Your task to perform on an android device: move a message to another label in the gmail app Image 0: 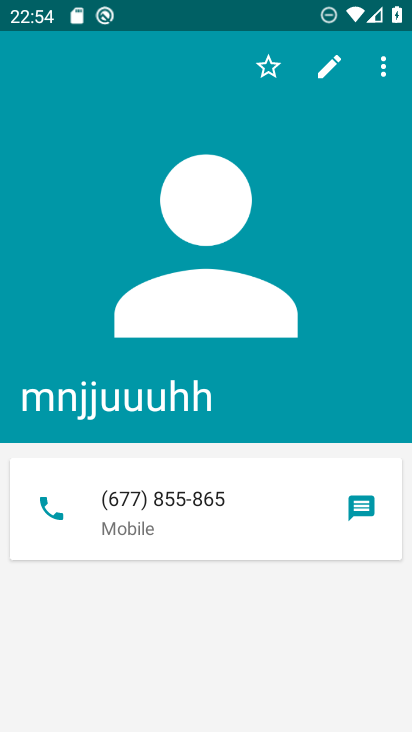
Step 0: press home button
Your task to perform on an android device: move a message to another label in the gmail app Image 1: 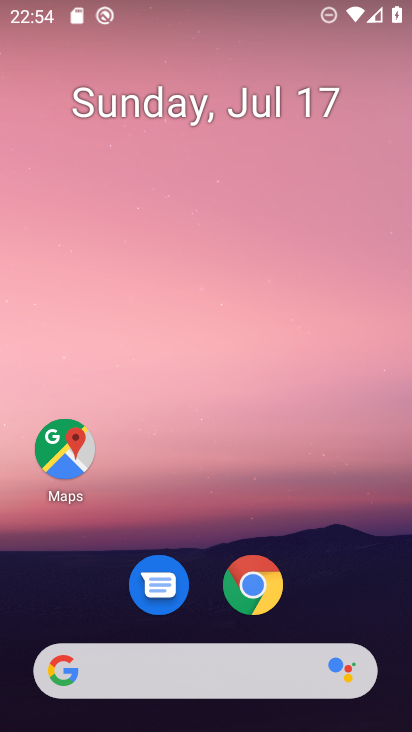
Step 1: drag from (248, 578) to (367, 126)
Your task to perform on an android device: move a message to another label in the gmail app Image 2: 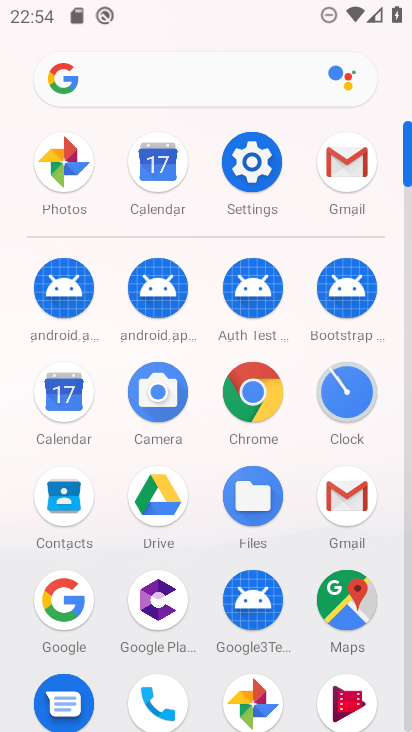
Step 2: click (344, 169)
Your task to perform on an android device: move a message to another label in the gmail app Image 3: 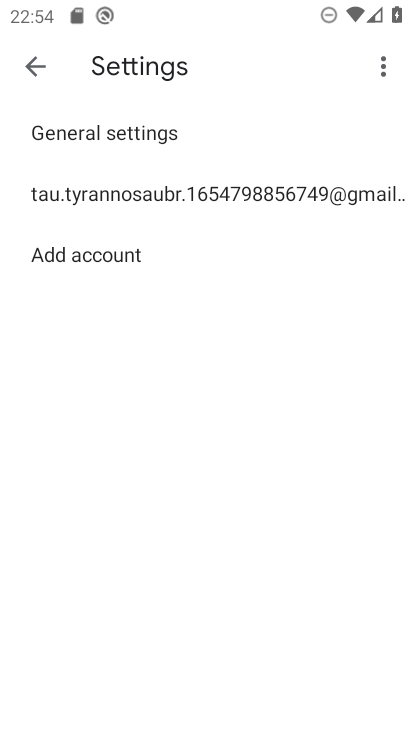
Step 3: click (32, 67)
Your task to perform on an android device: move a message to another label in the gmail app Image 4: 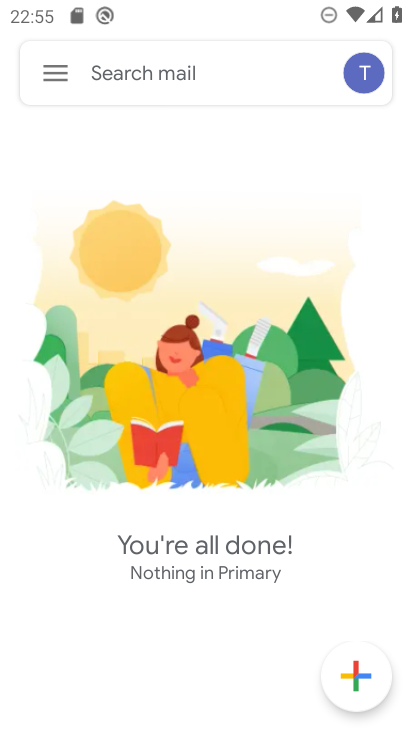
Step 4: task complete